Your task to perform on an android device: Open Reddit.com Image 0: 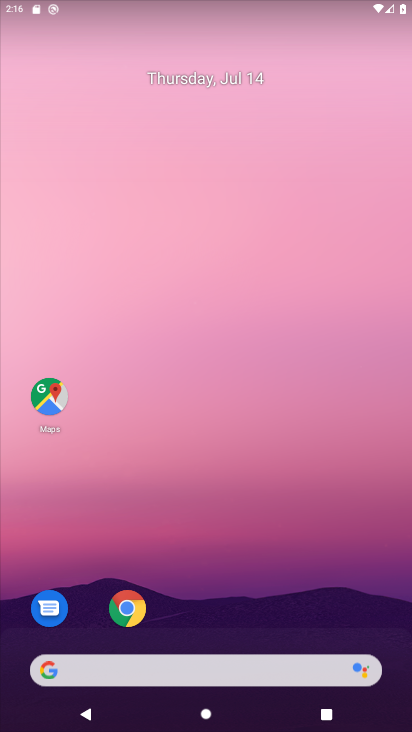
Step 0: press home button
Your task to perform on an android device: Open Reddit.com Image 1: 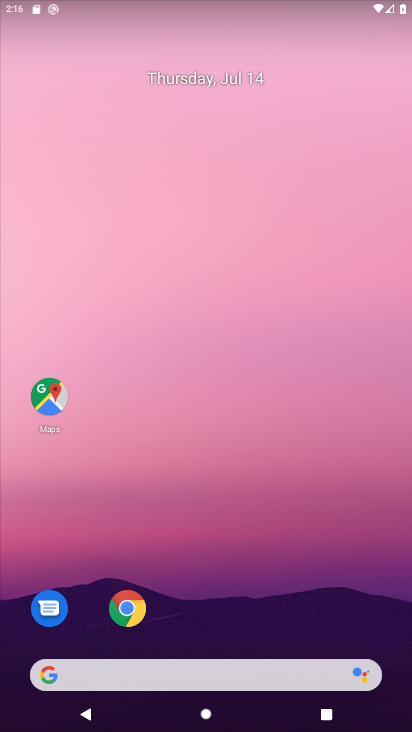
Step 1: drag from (317, 593) to (405, 6)
Your task to perform on an android device: Open Reddit.com Image 2: 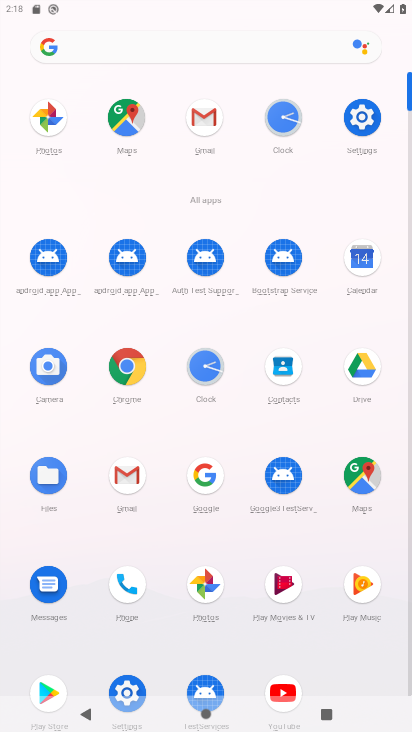
Step 2: click (146, 354)
Your task to perform on an android device: Open Reddit.com Image 3: 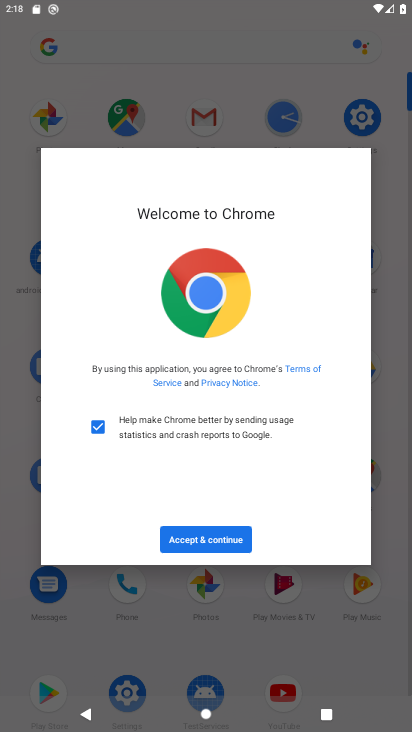
Step 3: click (193, 521)
Your task to perform on an android device: Open Reddit.com Image 4: 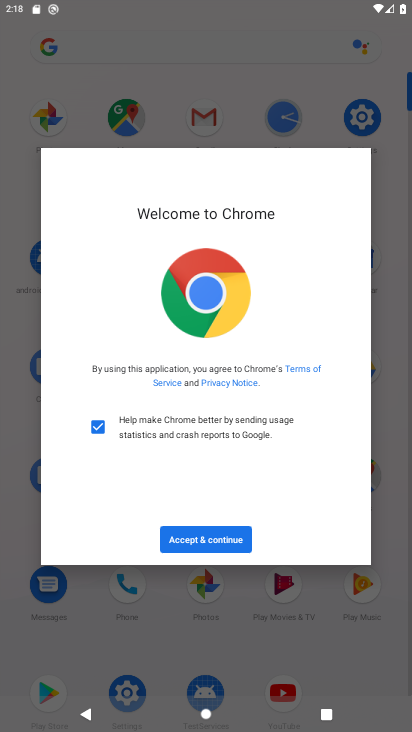
Step 4: click (198, 528)
Your task to perform on an android device: Open Reddit.com Image 5: 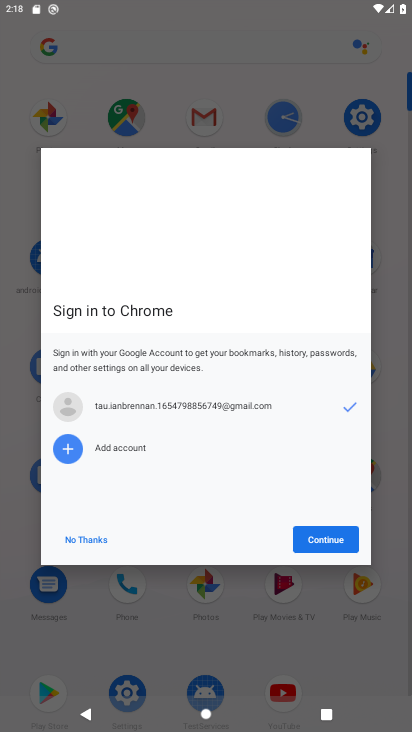
Step 5: click (325, 541)
Your task to perform on an android device: Open Reddit.com Image 6: 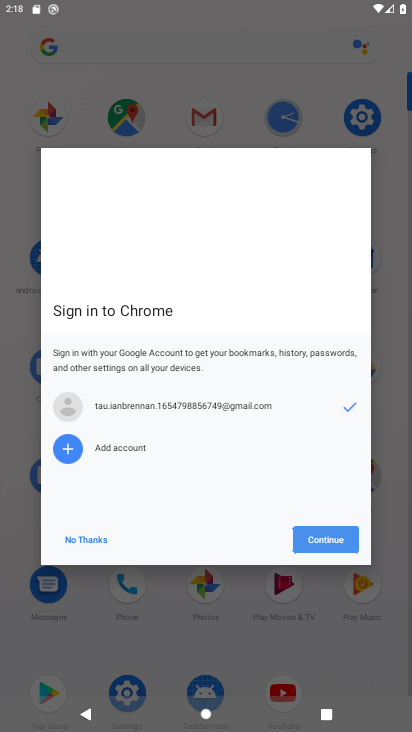
Step 6: click (325, 541)
Your task to perform on an android device: Open Reddit.com Image 7: 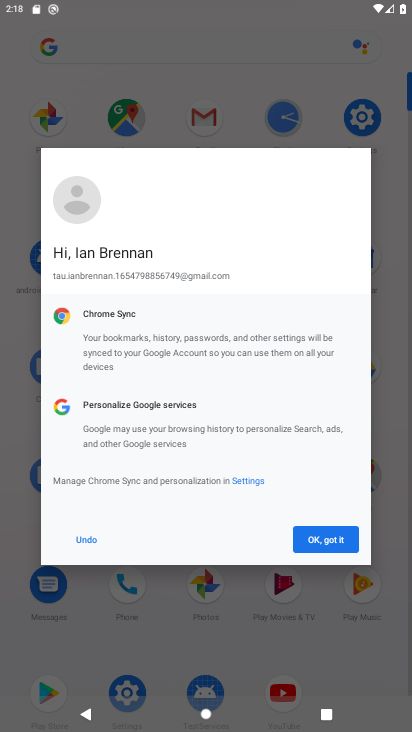
Step 7: click (319, 535)
Your task to perform on an android device: Open Reddit.com Image 8: 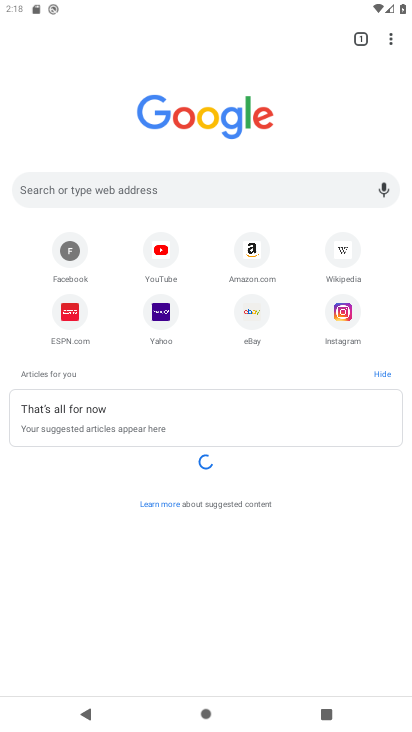
Step 8: click (215, 183)
Your task to perform on an android device: Open Reddit.com Image 9: 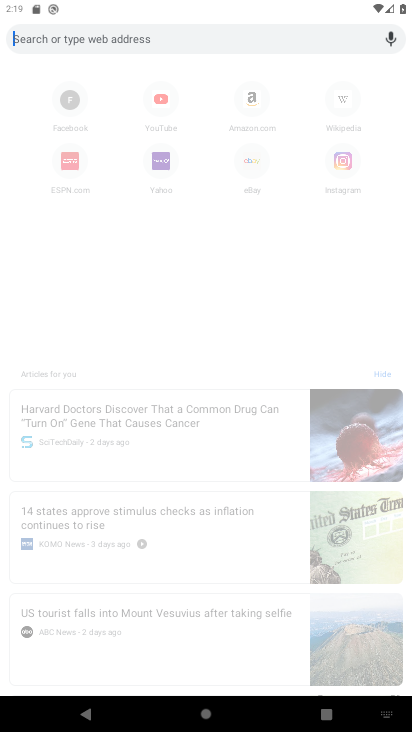
Step 9: type "Reddit.com"
Your task to perform on an android device: Open Reddit.com Image 10: 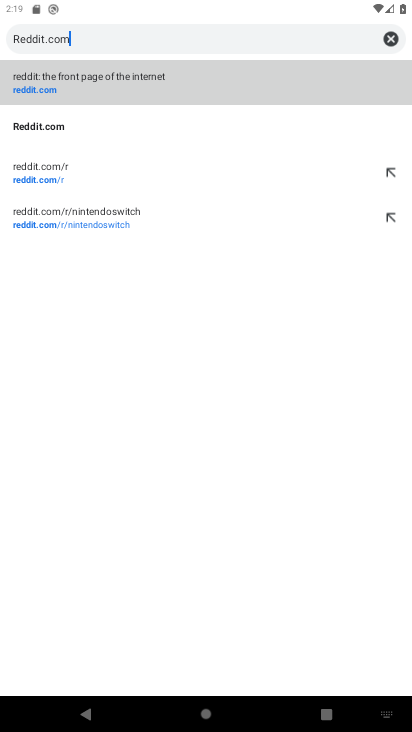
Step 10: type ""
Your task to perform on an android device: Open Reddit.com Image 11: 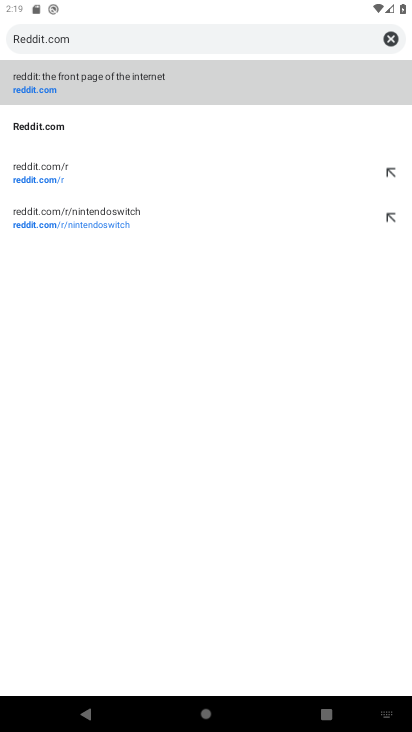
Step 11: click (74, 86)
Your task to perform on an android device: Open Reddit.com Image 12: 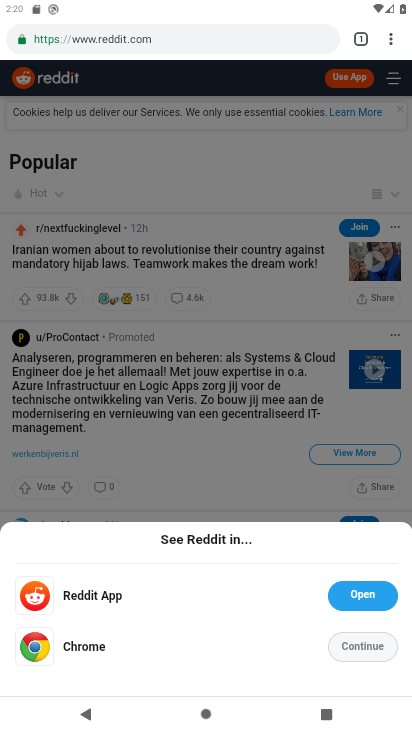
Step 12: click (202, 43)
Your task to perform on an android device: Open Reddit.com Image 13: 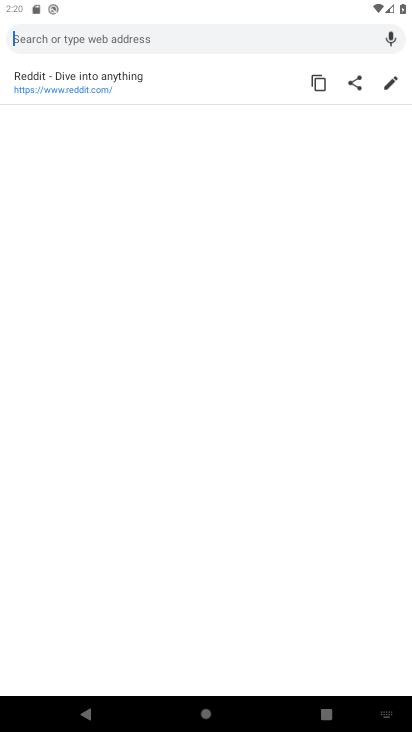
Step 13: task complete